Your task to perform on an android device: Go to settings Image 0: 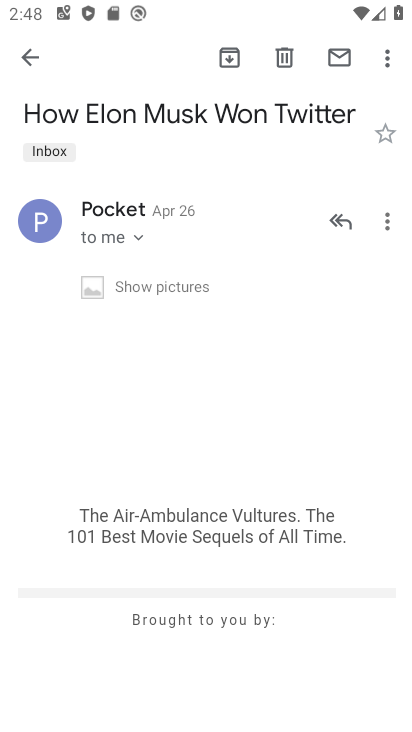
Step 0: press back button
Your task to perform on an android device: Go to settings Image 1: 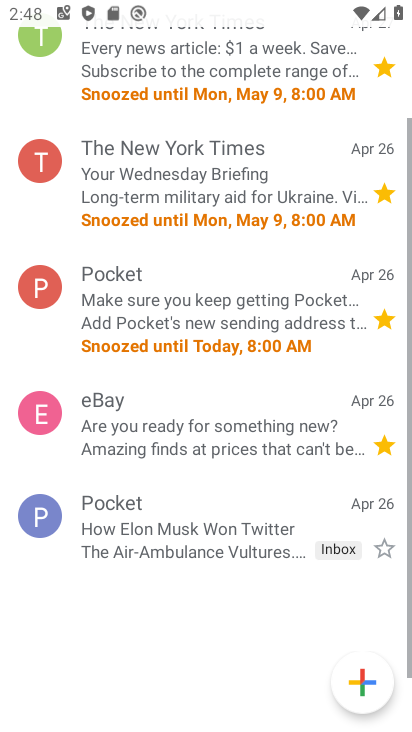
Step 1: press back button
Your task to perform on an android device: Go to settings Image 2: 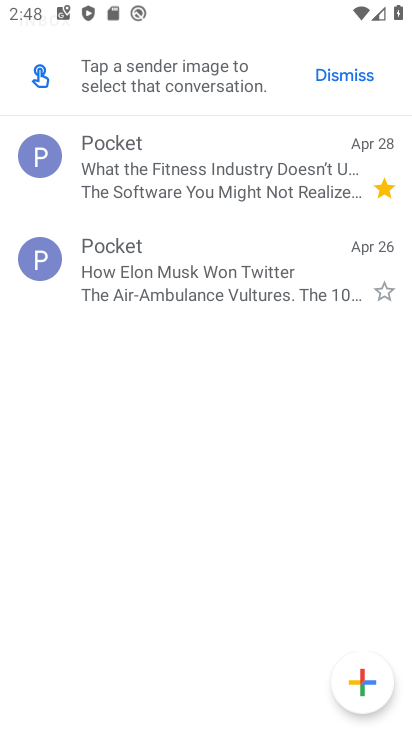
Step 2: press home button
Your task to perform on an android device: Go to settings Image 3: 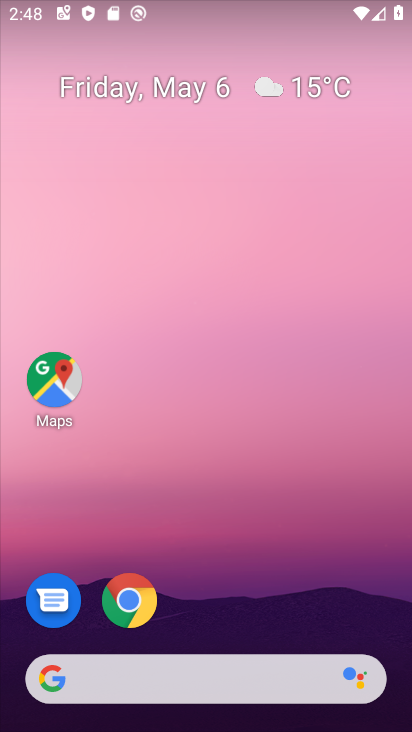
Step 3: drag from (255, 579) to (251, 12)
Your task to perform on an android device: Go to settings Image 4: 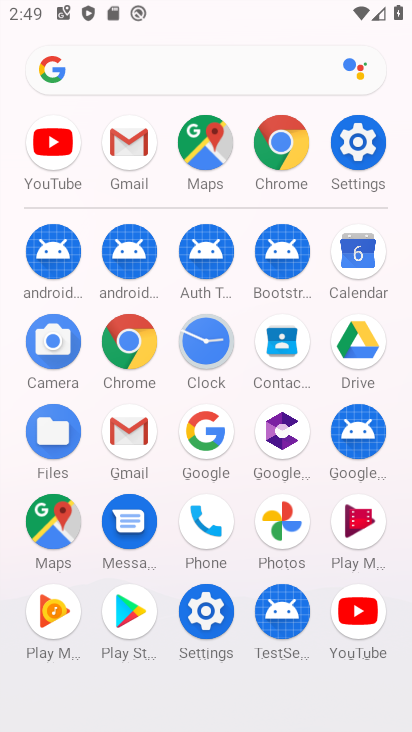
Step 4: click (349, 137)
Your task to perform on an android device: Go to settings Image 5: 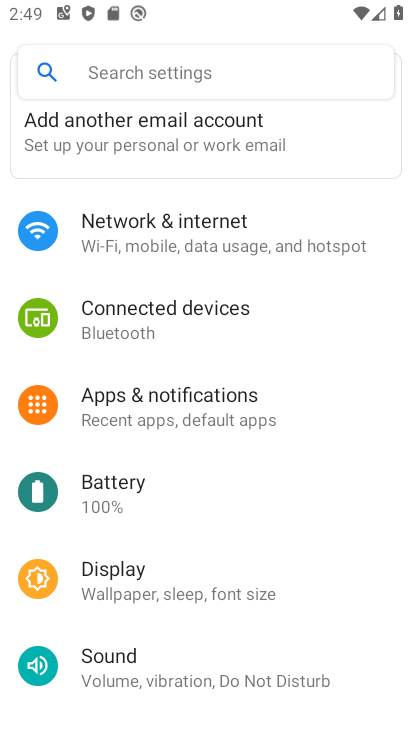
Step 5: task complete